Your task to perform on an android device: Open Maps and search for coffee Image 0: 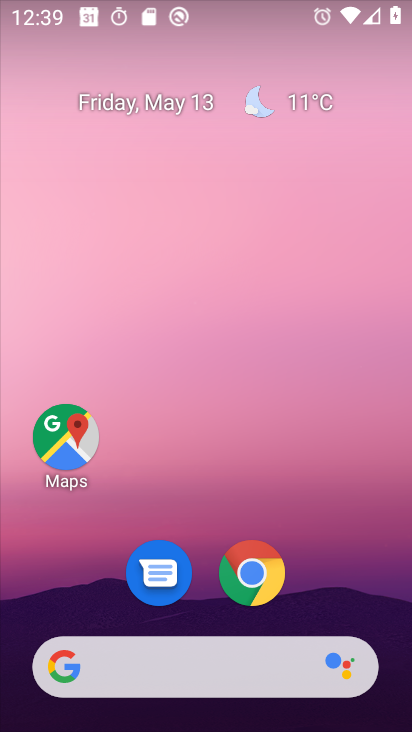
Step 0: click (56, 432)
Your task to perform on an android device: Open Maps and search for coffee Image 1: 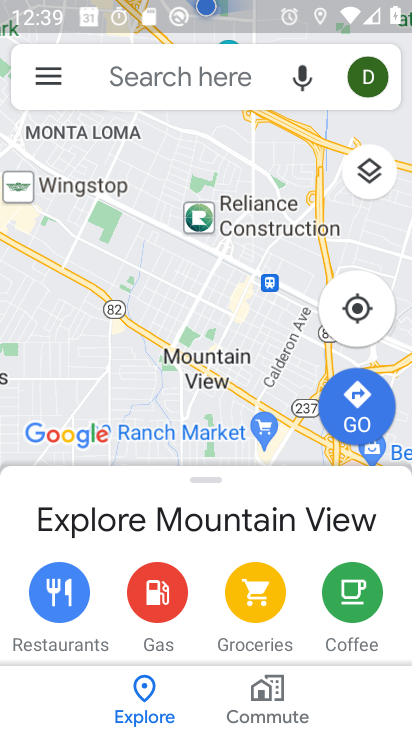
Step 1: click (139, 70)
Your task to perform on an android device: Open Maps and search for coffee Image 2: 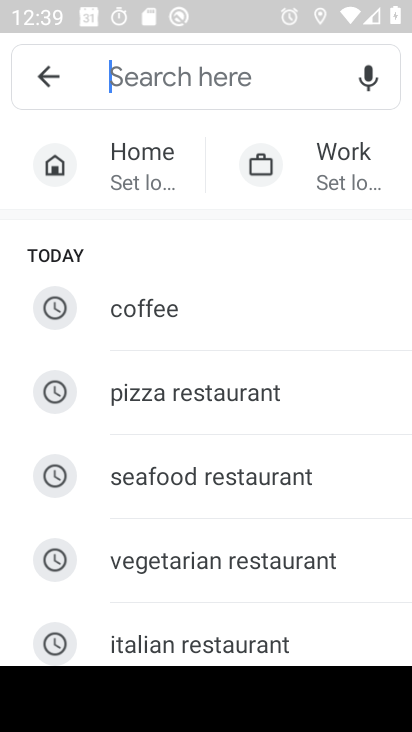
Step 2: type "coffee"
Your task to perform on an android device: Open Maps and search for coffee Image 3: 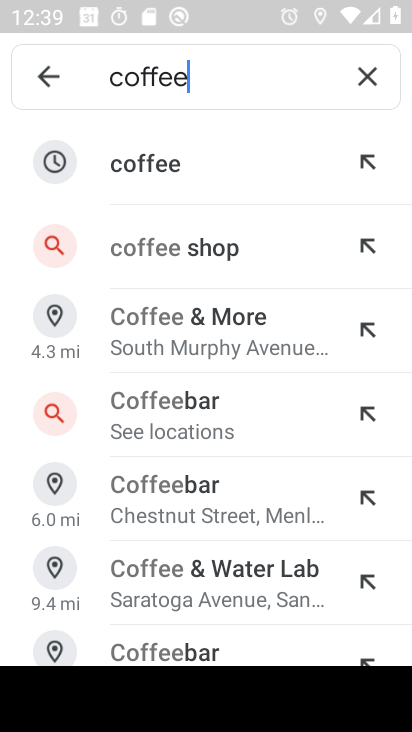
Step 3: click (132, 163)
Your task to perform on an android device: Open Maps and search for coffee Image 4: 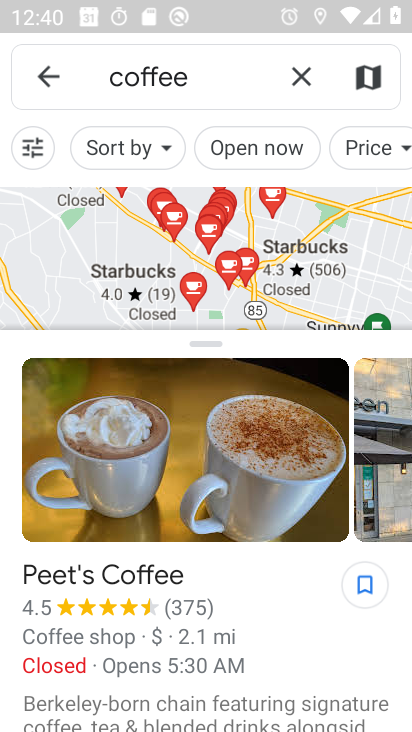
Step 4: task complete